Your task to perform on an android device: Search for pizza restaurants on Maps Image 0: 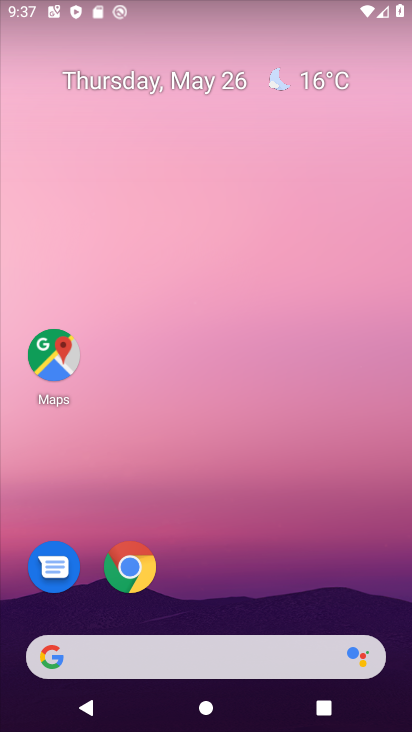
Step 0: click (63, 344)
Your task to perform on an android device: Search for pizza restaurants on Maps Image 1: 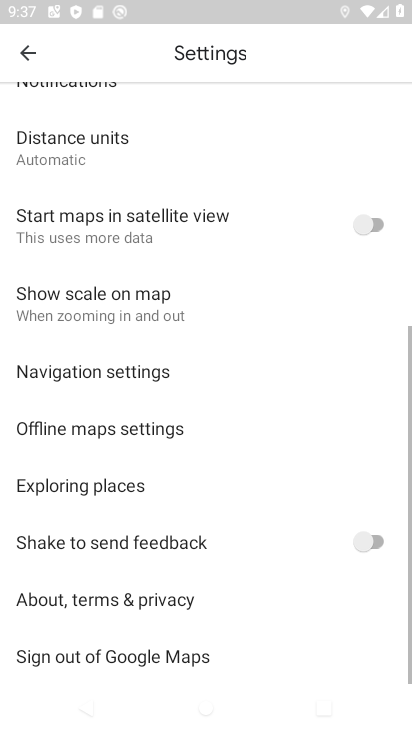
Step 1: click (32, 48)
Your task to perform on an android device: Search for pizza restaurants on Maps Image 2: 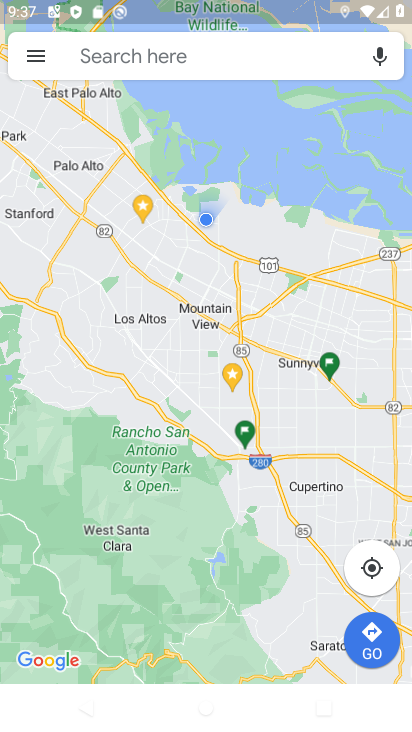
Step 2: click (96, 57)
Your task to perform on an android device: Search for pizza restaurants on Maps Image 3: 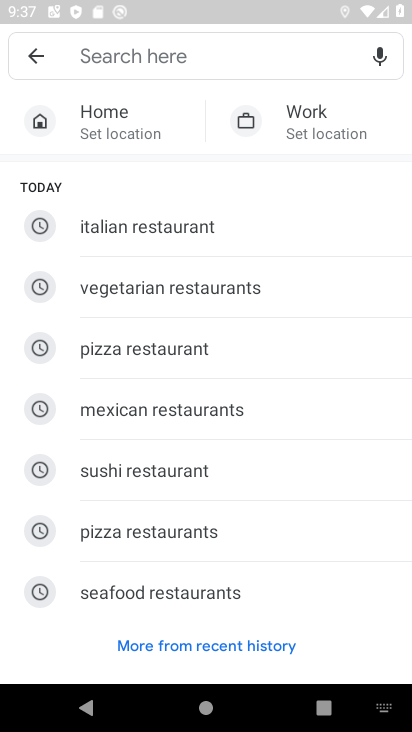
Step 3: type "pizza restaurants"
Your task to perform on an android device: Search for pizza restaurants on Maps Image 4: 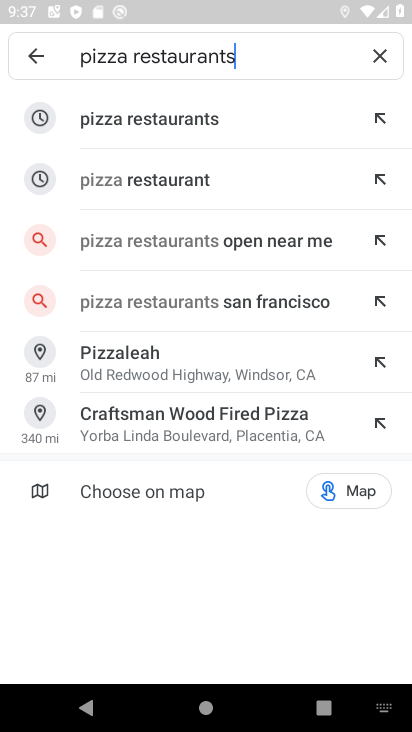
Step 4: click (126, 116)
Your task to perform on an android device: Search for pizza restaurants on Maps Image 5: 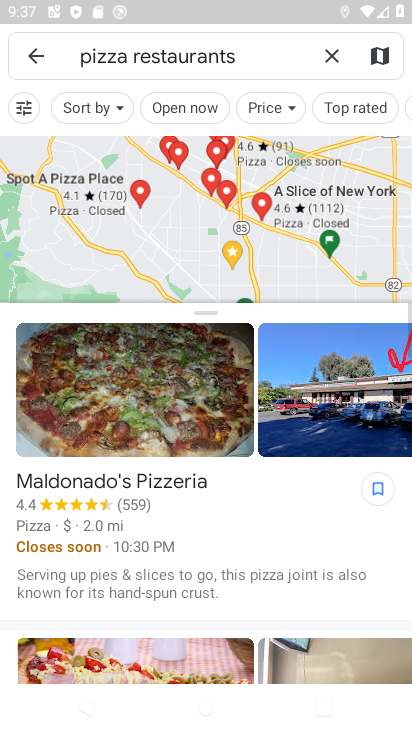
Step 5: task complete